Your task to perform on an android device: View the shopping cart on ebay.com. Add "panasonic triple a" to the cart on ebay.com Image 0: 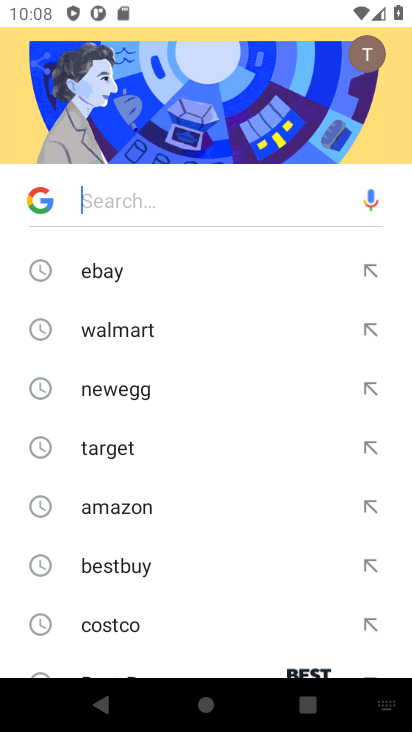
Step 0: type "ebay.com"
Your task to perform on an android device: View the shopping cart on ebay.com. Add "panasonic triple a" to the cart on ebay.com Image 1: 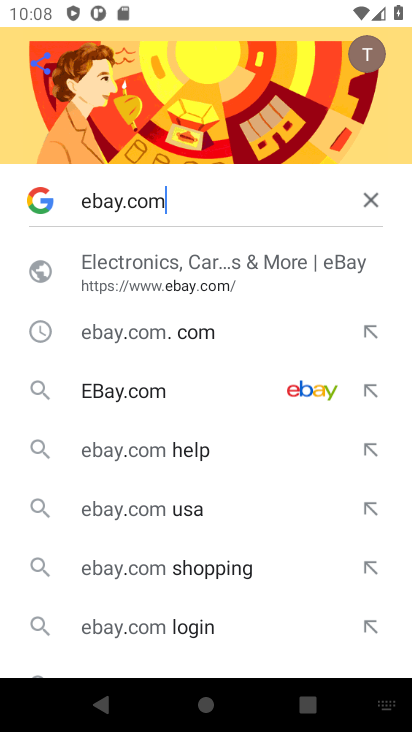
Step 1: click (156, 288)
Your task to perform on an android device: View the shopping cart on ebay.com. Add "panasonic triple a" to the cart on ebay.com Image 2: 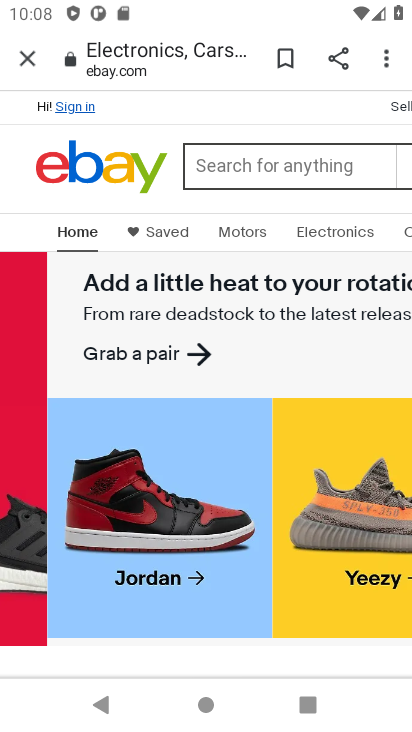
Step 2: drag from (225, 202) to (16, 201)
Your task to perform on an android device: View the shopping cart on ebay.com. Add "panasonic triple a" to the cart on ebay.com Image 3: 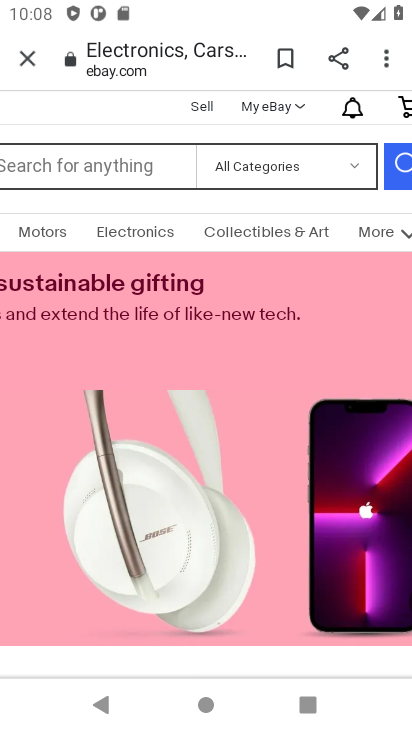
Step 3: click (409, 106)
Your task to perform on an android device: View the shopping cart on ebay.com. Add "panasonic triple a" to the cart on ebay.com Image 4: 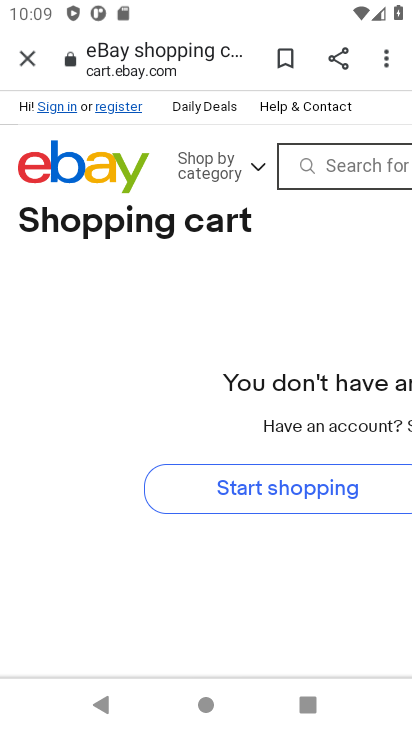
Step 4: click (335, 168)
Your task to perform on an android device: View the shopping cart on ebay.com. Add "panasonic triple a" to the cart on ebay.com Image 5: 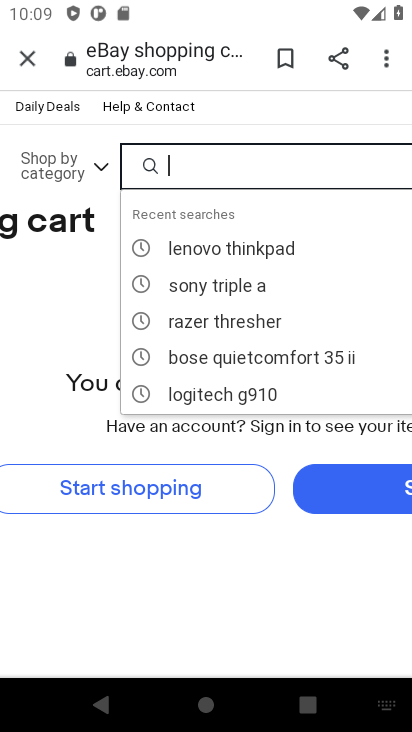
Step 5: type "panasonic triple a"
Your task to perform on an android device: View the shopping cart on ebay.com. Add "panasonic triple a" to the cart on ebay.com Image 6: 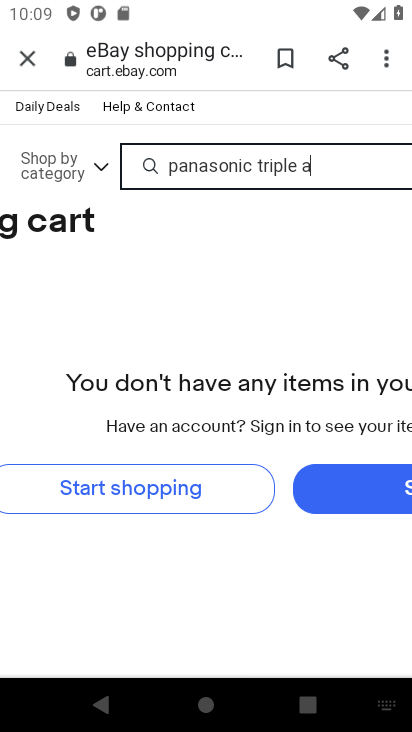
Step 6: drag from (256, 285) to (9, 259)
Your task to perform on an android device: View the shopping cart on ebay.com. Add "panasonic triple a" to the cart on ebay.com Image 7: 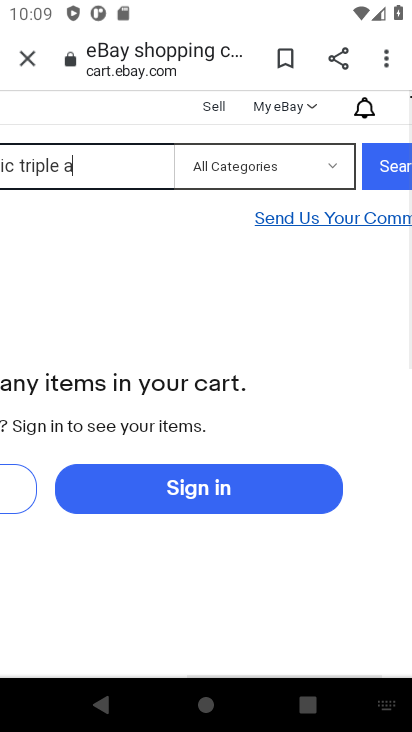
Step 7: click (371, 170)
Your task to perform on an android device: View the shopping cart on ebay.com. Add "panasonic triple a" to the cart on ebay.com Image 8: 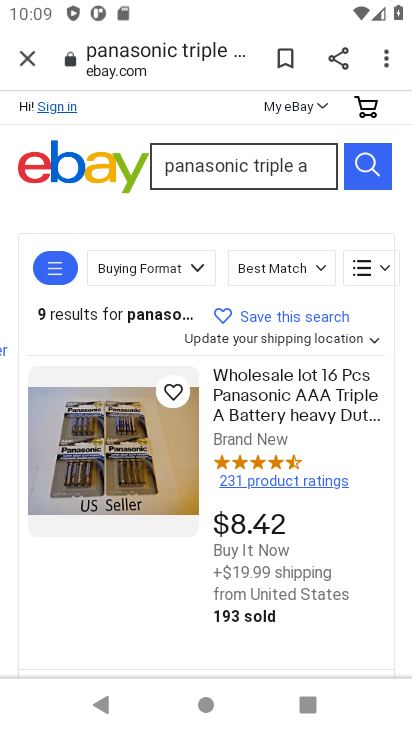
Step 8: click (245, 419)
Your task to perform on an android device: View the shopping cart on ebay.com. Add "panasonic triple a" to the cart on ebay.com Image 9: 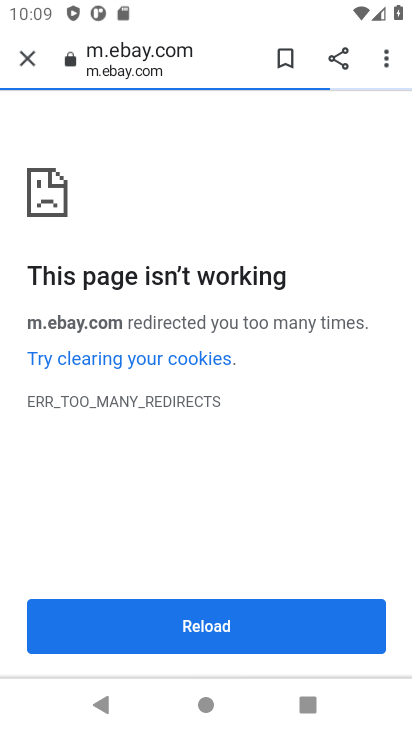
Step 9: task complete